Your task to perform on an android device: Go to calendar. Show me events next week Image 0: 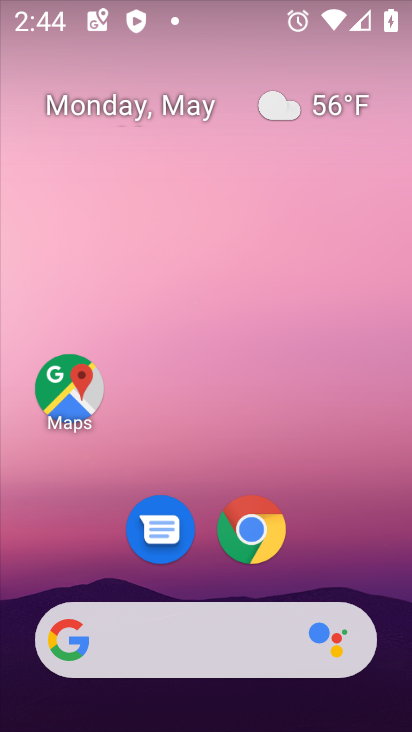
Step 0: drag from (326, 574) to (331, 29)
Your task to perform on an android device: Go to calendar. Show me events next week Image 1: 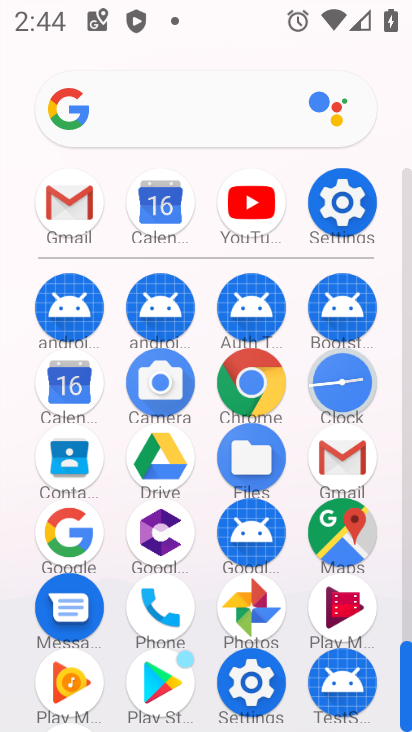
Step 1: click (60, 380)
Your task to perform on an android device: Go to calendar. Show me events next week Image 2: 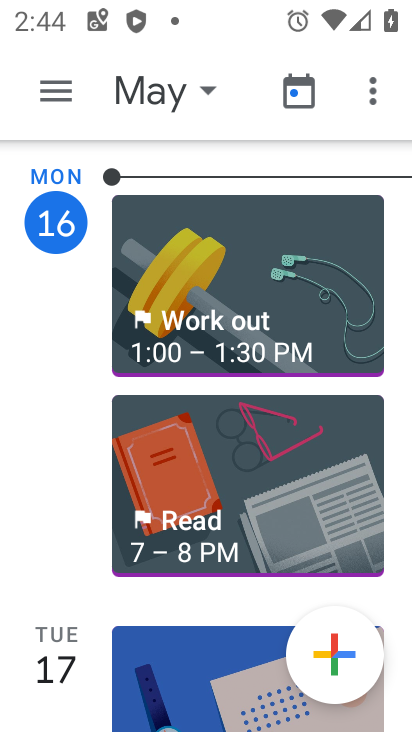
Step 2: click (157, 102)
Your task to perform on an android device: Go to calendar. Show me events next week Image 3: 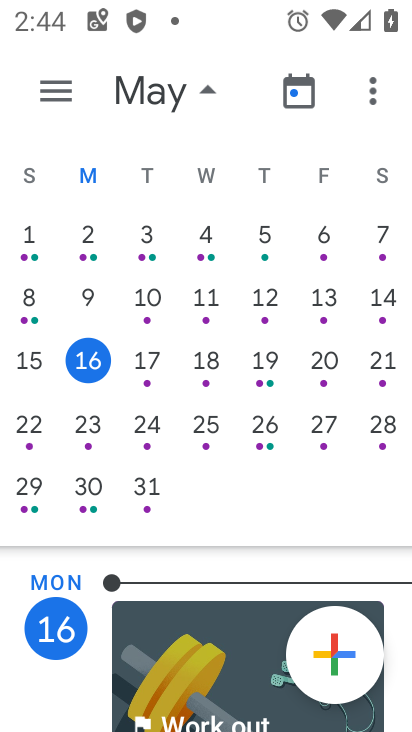
Step 3: click (384, 368)
Your task to perform on an android device: Go to calendar. Show me events next week Image 4: 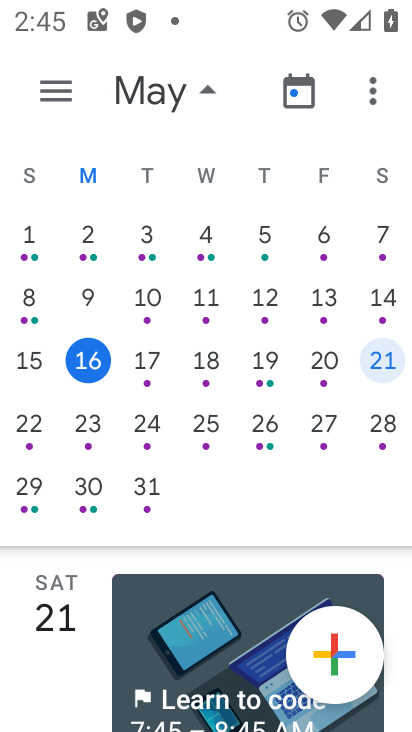
Step 4: task complete